Your task to perform on an android device: turn on the 24-hour format for clock Image 0: 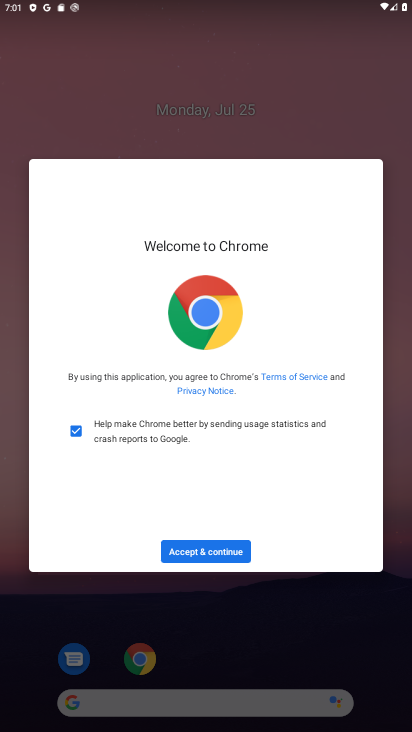
Step 0: press back button
Your task to perform on an android device: turn on the 24-hour format for clock Image 1: 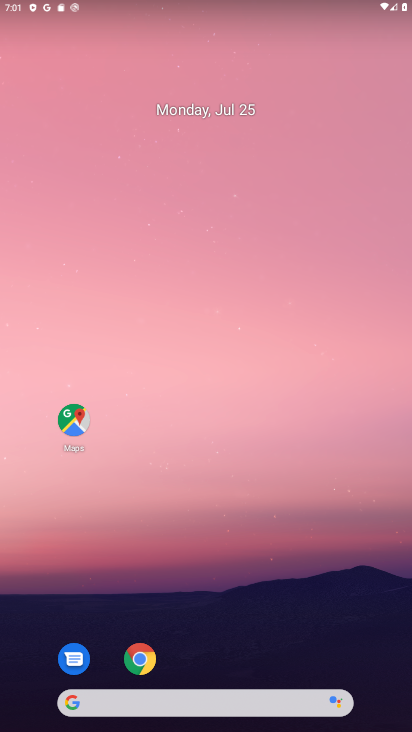
Step 1: drag from (192, 624) to (187, 24)
Your task to perform on an android device: turn on the 24-hour format for clock Image 2: 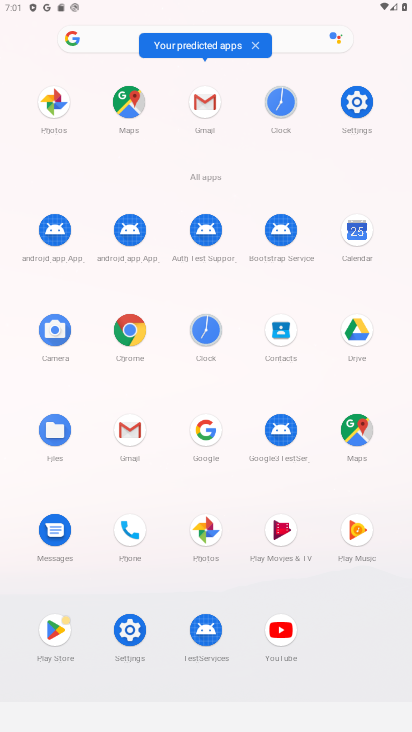
Step 2: click (209, 353)
Your task to perform on an android device: turn on the 24-hour format for clock Image 3: 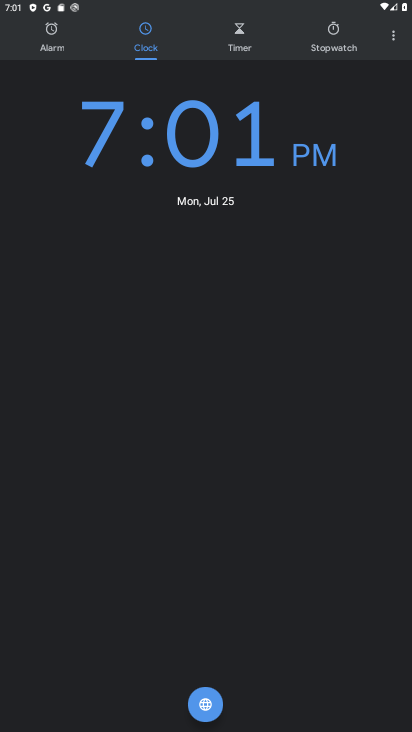
Step 3: click (391, 37)
Your task to perform on an android device: turn on the 24-hour format for clock Image 4: 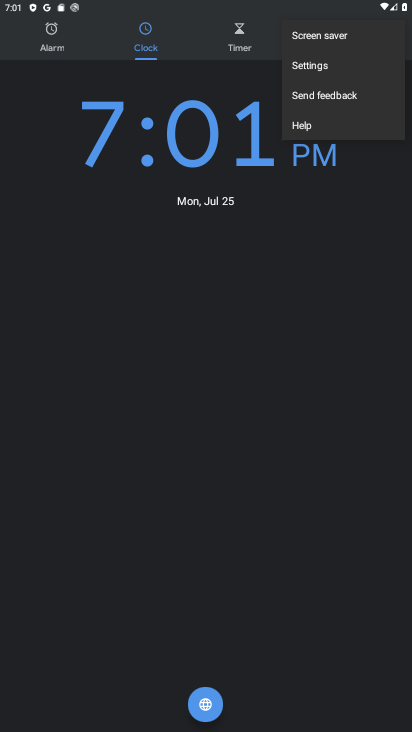
Step 4: click (321, 69)
Your task to perform on an android device: turn on the 24-hour format for clock Image 5: 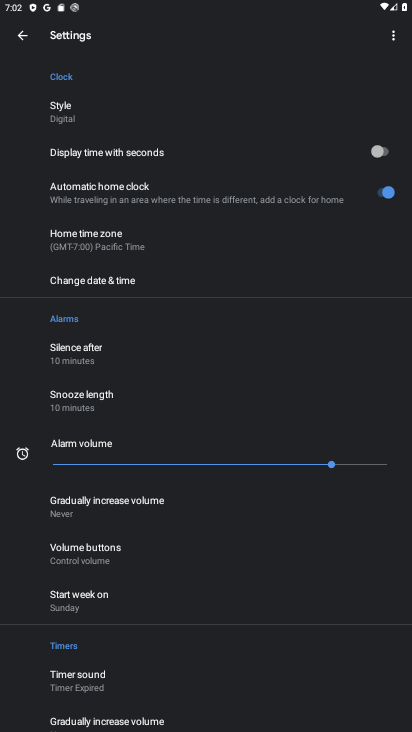
Step 5: click (84, 281)
Your task to perform on an android device: turn on the 24-hour format for clock Image 6: 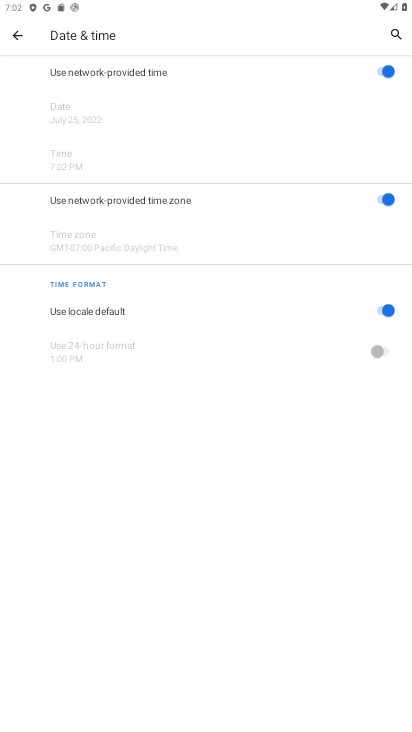
Step 6: click (377, 311)
Your task to perform on an android device: turn on the 24-hour format for clock Image 7: 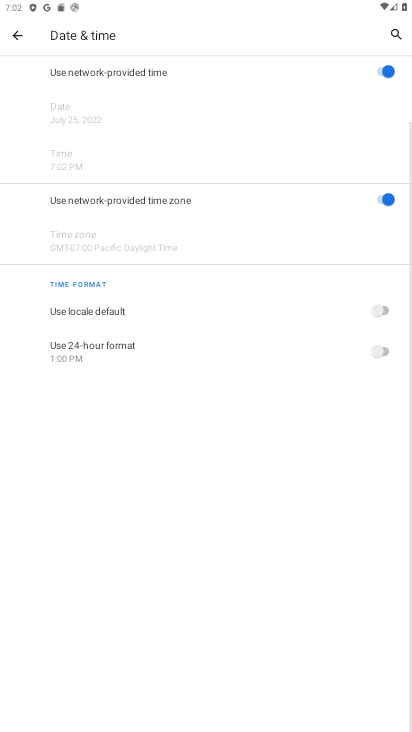
Step 7: click (383, 349)
Your task to perform on an android device: turn on the 24-hour format for clock Image 8: 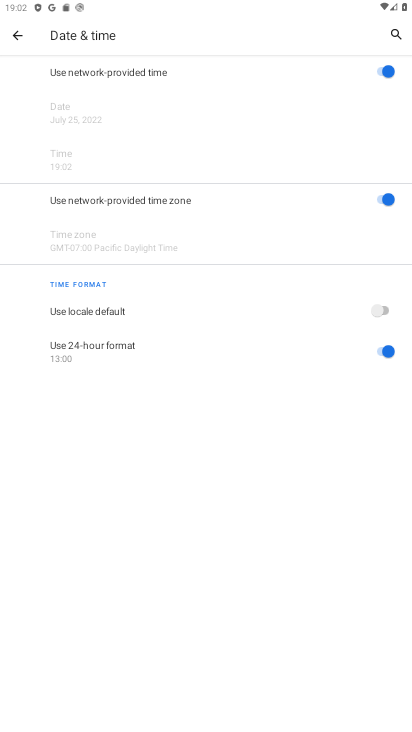
Step 8: task complete